Your task to perform on an android device: Open the web browser Image 0: 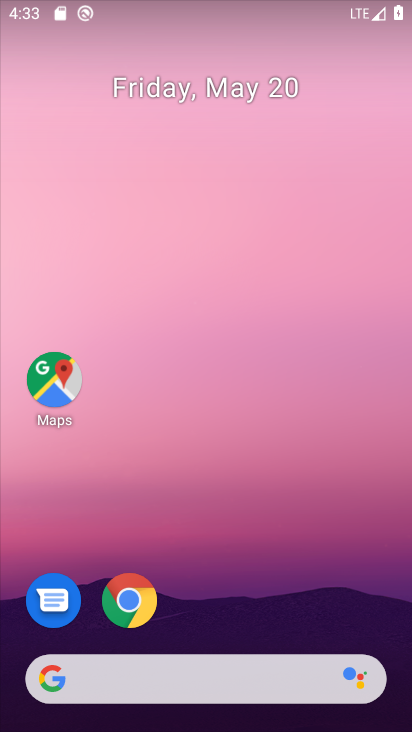
Step 0: click (131, 594)
Your task to perform on an android device: Open the web browser Image 1: 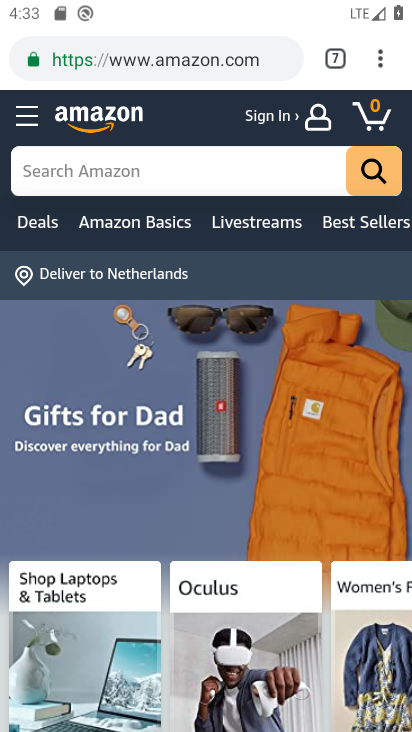
Step 1: task complete